Your task to perform on an android device: Check the news Image 0: 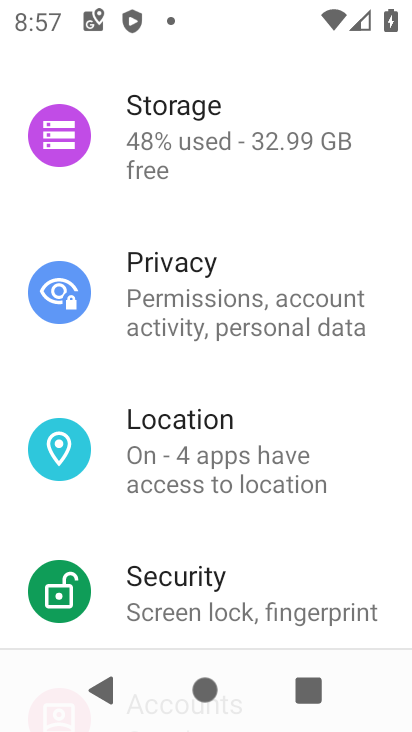
Step 0: press home button
Your task to perform on an android device: Check the news Image 1: 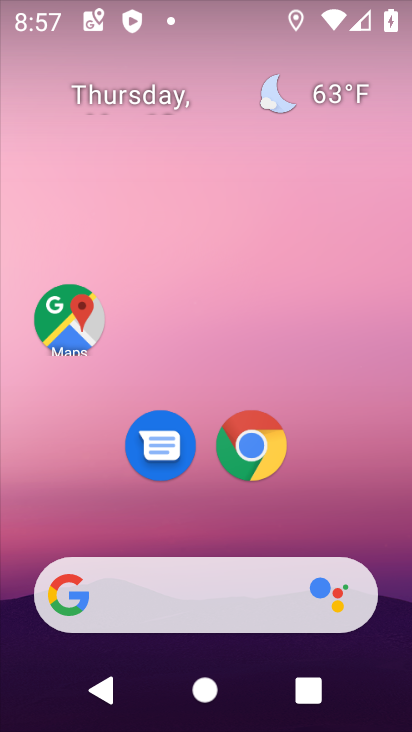
Step 1: drag from (223, 534) to (293, 18)
Your task to perform on an android device: Check the news Image 2: 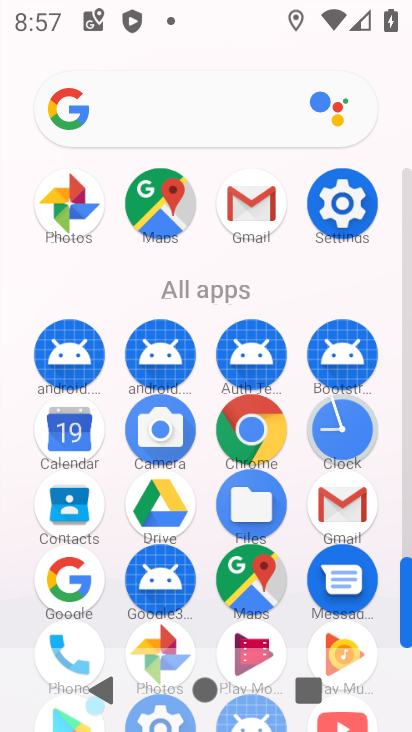
Step 2: click (191, 91)
Your task to perform on an android device: Check the news Image 3: 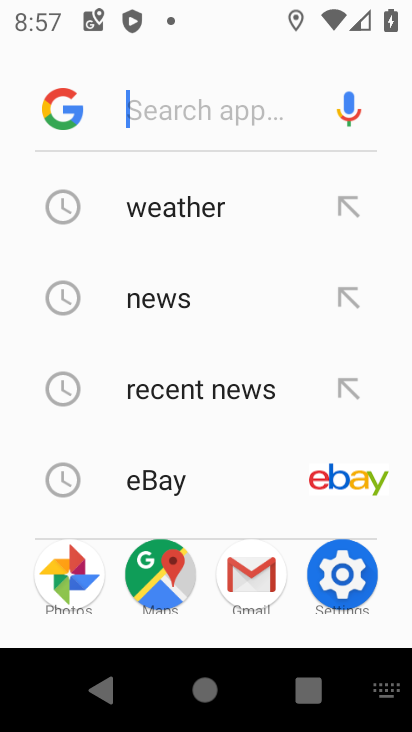
Step 3: click (165, 302)
Your task to perform on an android device: Check the news Image 4: 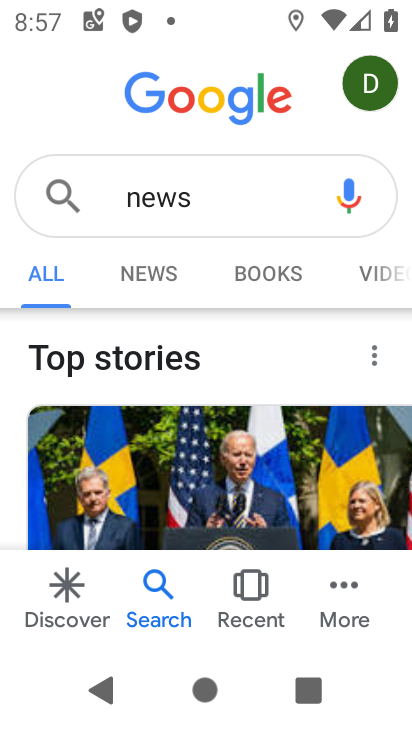
Step 4: task complete